Your task to perform on an android device: turn off translation in the chrome app Image 0: 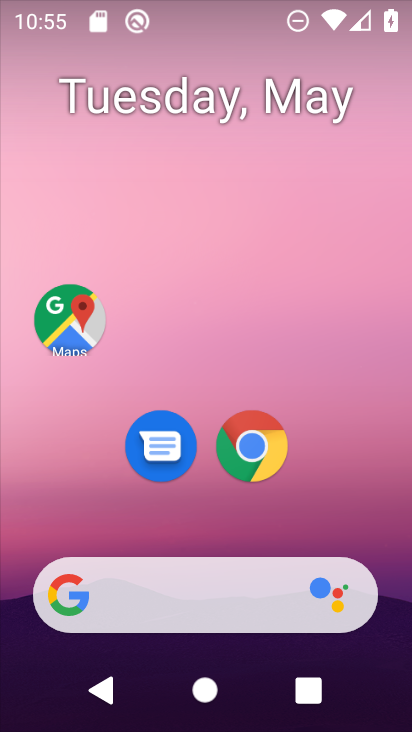
Step 0: click (263, 456)
Your task to perform on an android device: turn off translation in the chrome app Image 1: 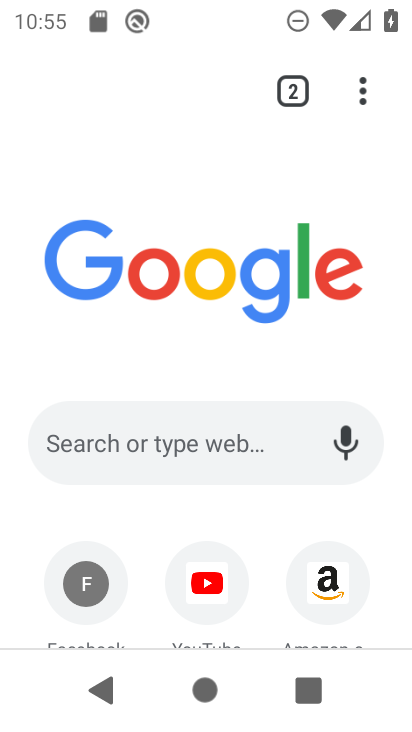
Step 1: click (368, 81)
Your task to perform on an android device: turn off translation in the chrome app Image 2: 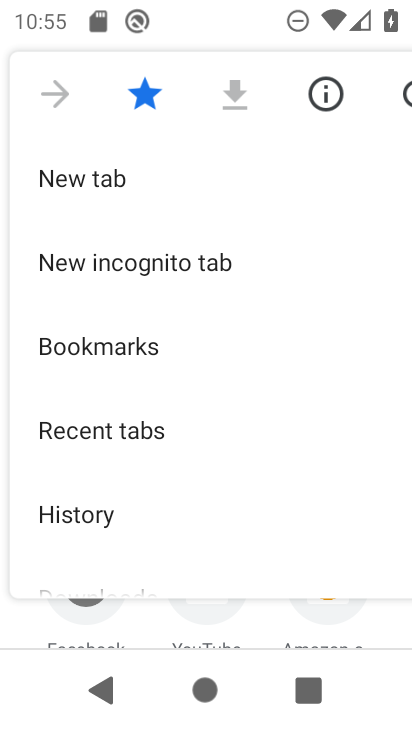
Step 2: drag from (158, 489) to (176, 231)
Your task to perform on an android device: turn off translation in the chrome app Image 3: 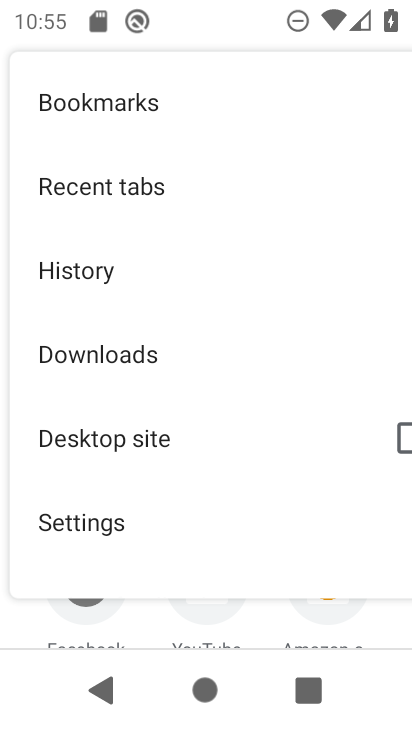
Step 3: drag from (100, 517) to (99, 421)
Your task to perform on an android device: turn off translation in the chrome app Image 4: 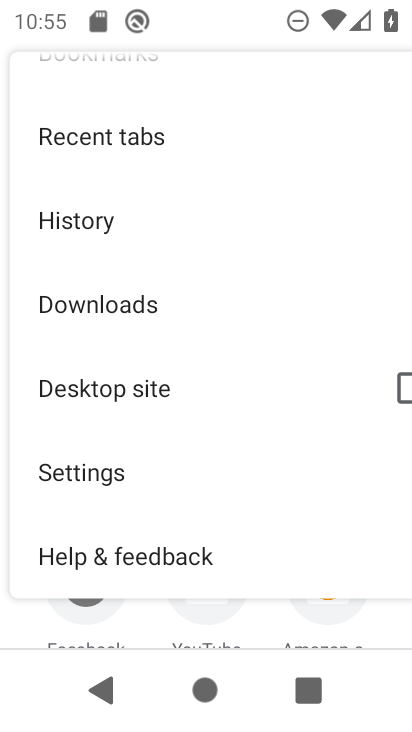
Step 4: click (93, 464)
Your task to perform on an android device: turn off translation in the chrome app Image 5: 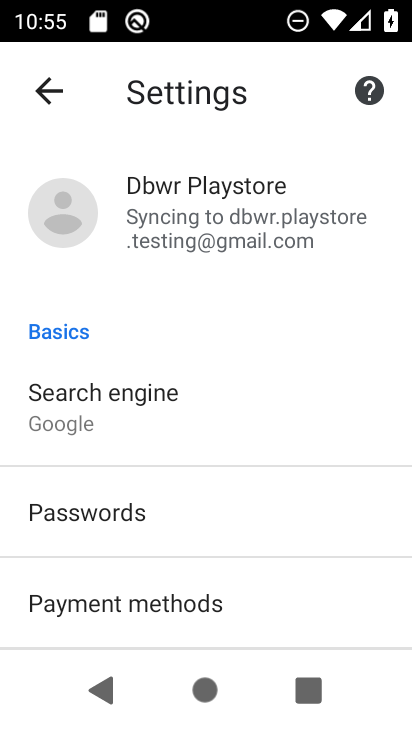
Step 5: drag from (125, 563) to (199, 201)
Your task to perform on an android device: turn off translation in the chrome app Image 6: 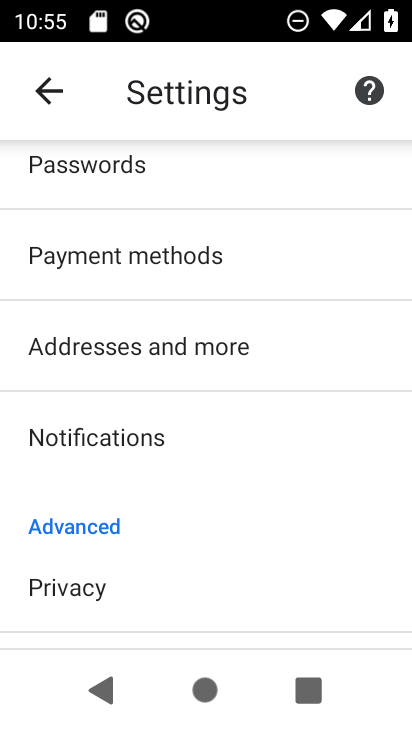
Step 6: drag from (189, 550) to (250, 243)
Your task to perform on an android device: turn off translation in the chrome app Image 7: 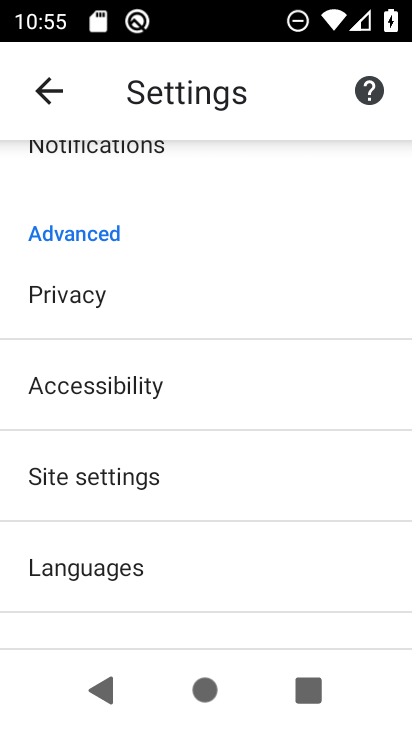
Step 7: click (118, 555)
Your task to perform on an android device: turn off translation in the chrome app Image 8: 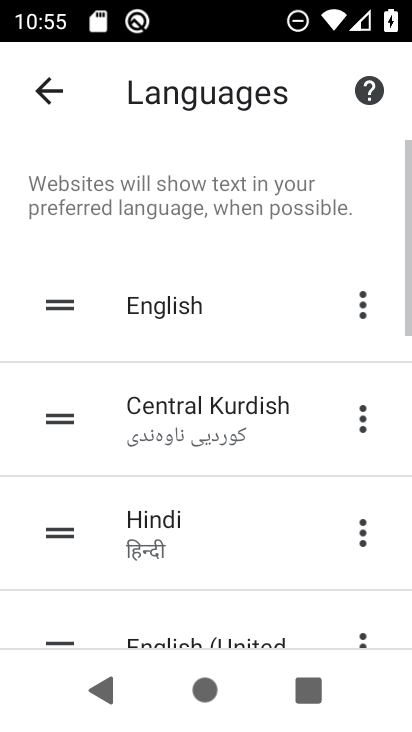
Step 8: drag from (134, 566) to (196, 281)
Your task to perform on an android device: turn off translation in the chrome app Image 9: 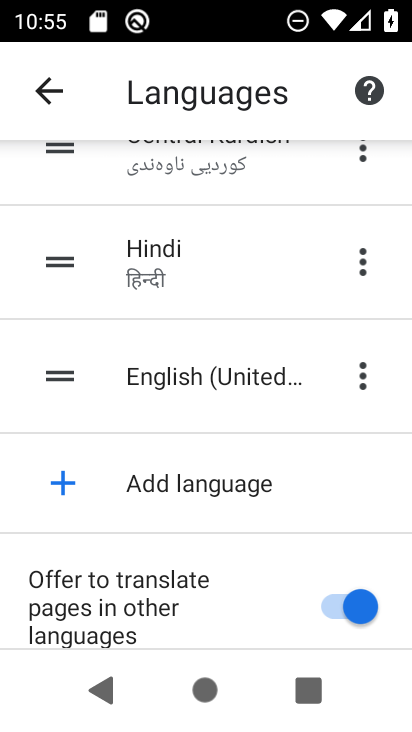
Step 9: drag from (265, 548) to (280, 438)
Your task to perform on an android device: turn off translation in the chrome app Image 10: 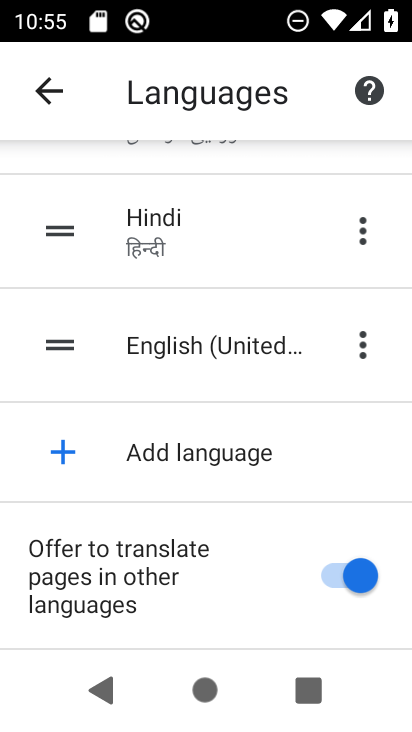
Step 10: click (325, 577)
Your task to perform on an android device: turn off translation in the chrome app Image 11: 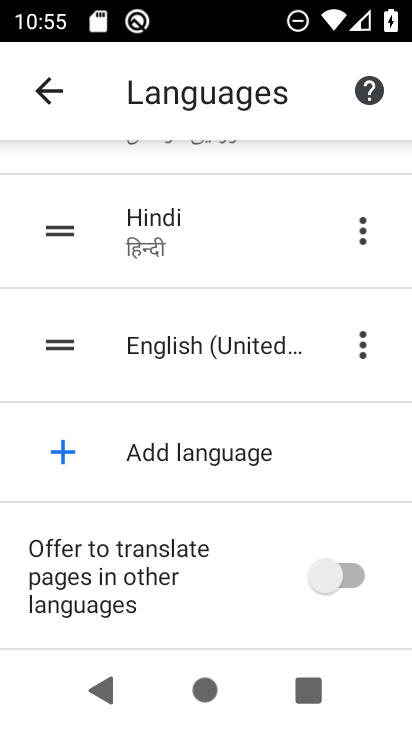
Step 11: task complete